Your task to perform on an android device: create a new album in the google photos Image 0: 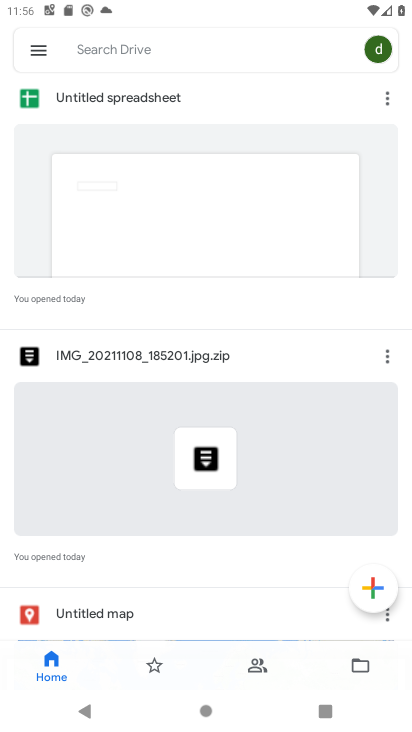
Step 0: press home button
Your task to perform on an android device: create a new album in the google photos Image 1: 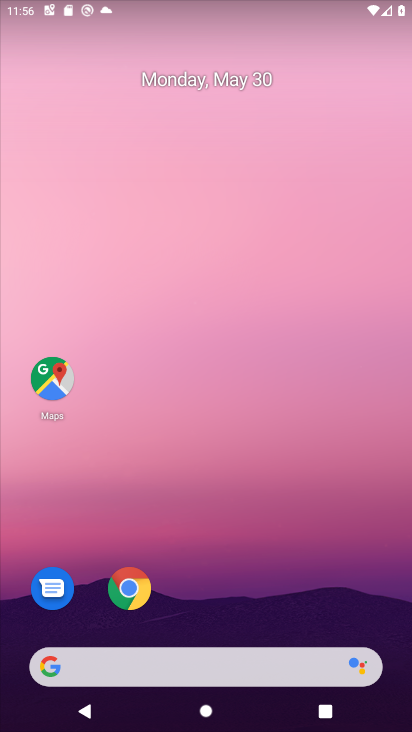
Step 1: drag from (281, 622) to (351, 304)
Your task to perform on an android device: create a new album in the google photos Image 2: 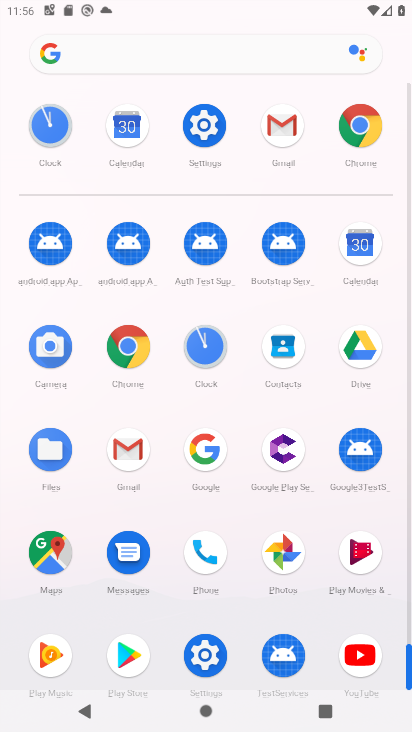
Step 2: click (287, 555)
Your task to perform on an android device: create a new album in the google photos Image 3: 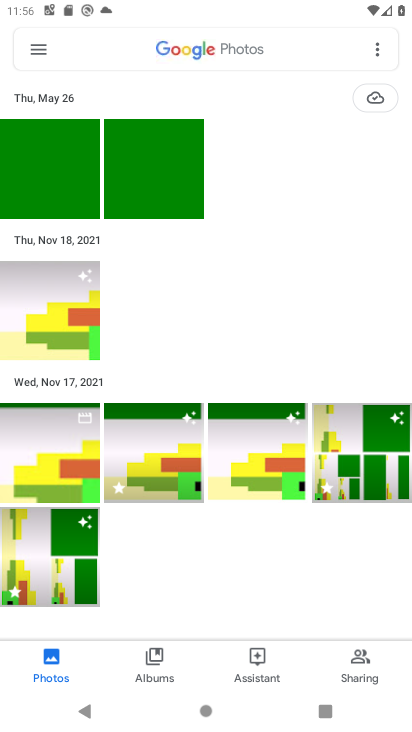
Step 3: task complete